Your task to perform on an android device: turn vacation reply on in the gmail app Image 0: 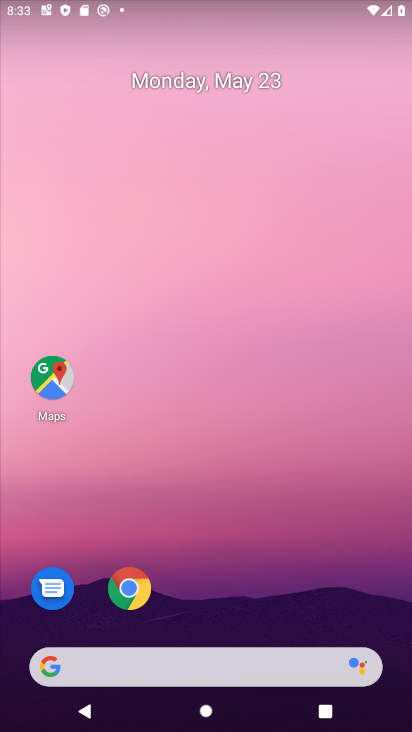
Step 0: drag from (395, 706) to (374, 218)
Your task to perform on an android device: turn vacation reply on in the gmail app Image 1: 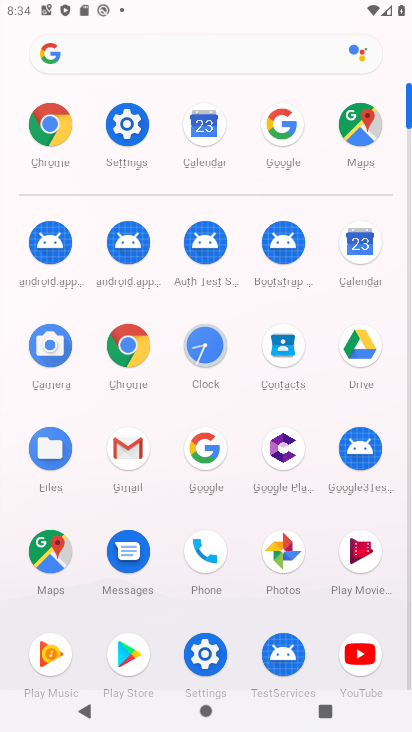
Step 1: click (117, 463)
Your task to perform on an android device: turn vacation reply on in the gmail app Image 2: 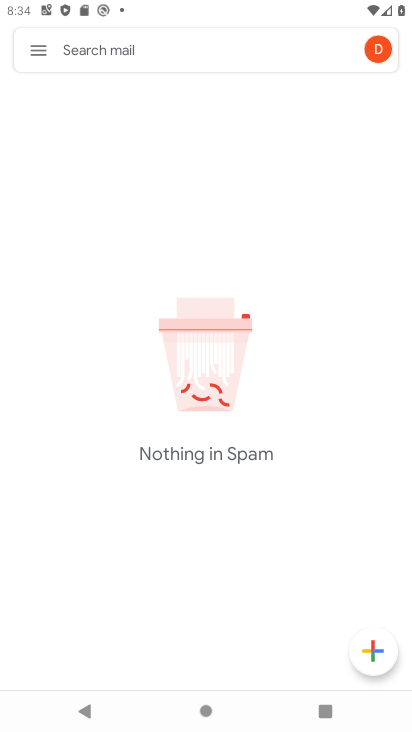
Step 2: click (26, 51)
Your task to perform on an android device: turn vacation reply on in the gmail app Image 3: 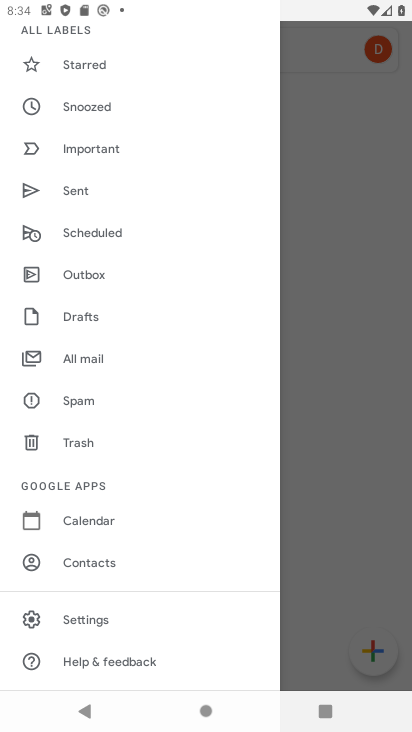
Step 3: click (89, 621)
Your task to perform on an android device: turn vacation reply on in the gmail app Image 4: 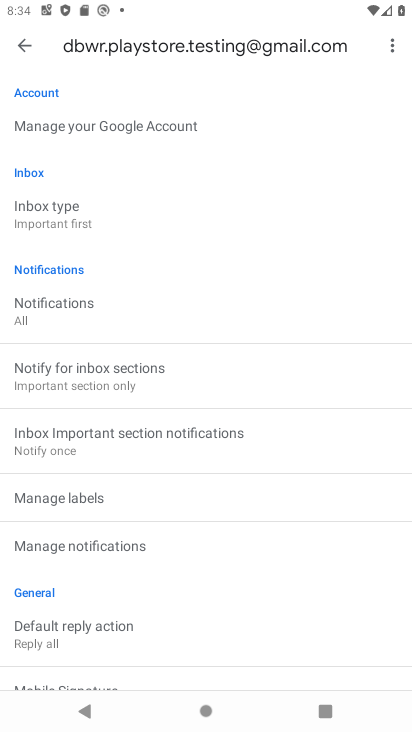
Step 4: drag from (298, 605) to (279, 351)
Your task to perform on an android device: turn vacation reply on in the gmail app Image 5: 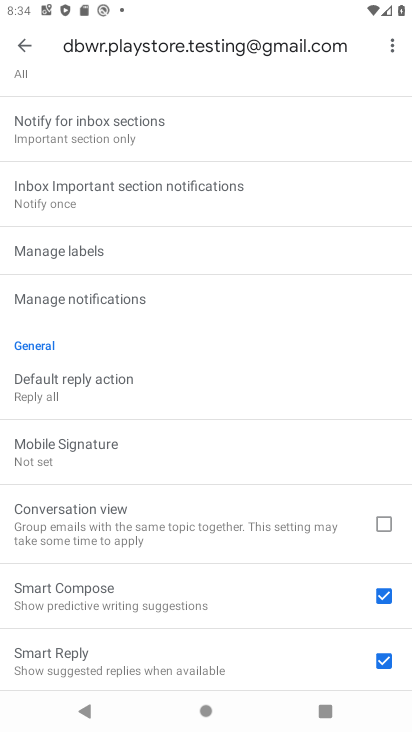
Step 5: drag from (286, 144) to (282, 539)
Your task to perform on an android device: turn vacation reply on in the gmail app Image 6: 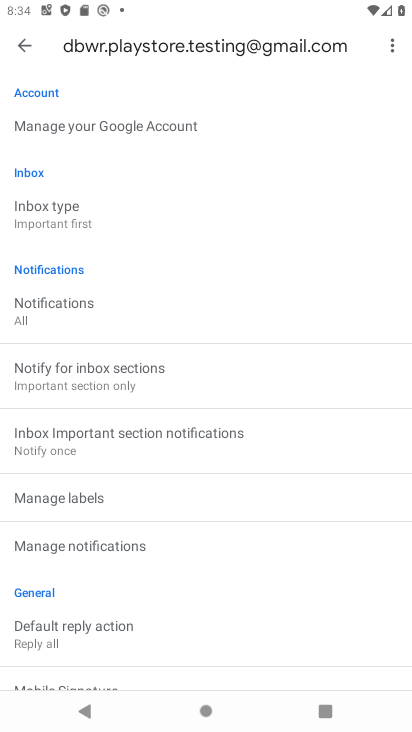
Step 6: drag from (209, 646) to (239, 352)
Your task to perform on an android device: turn vacation reply on in the gmail app Image 7: 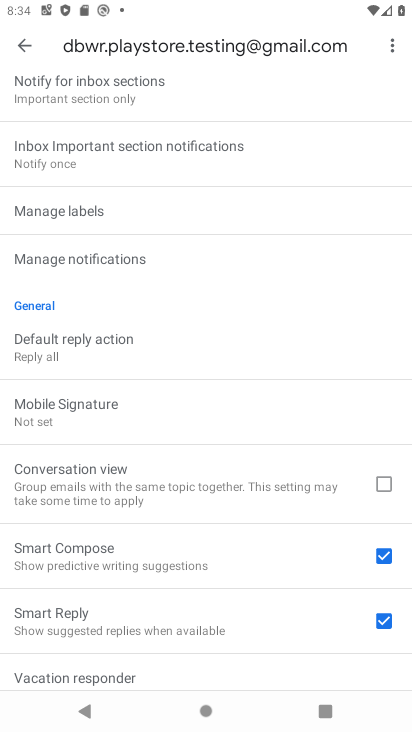
Step 7: click (226, 618)
Your task to perform on an android device: turn vacation reply on in the gmail app Image 8: 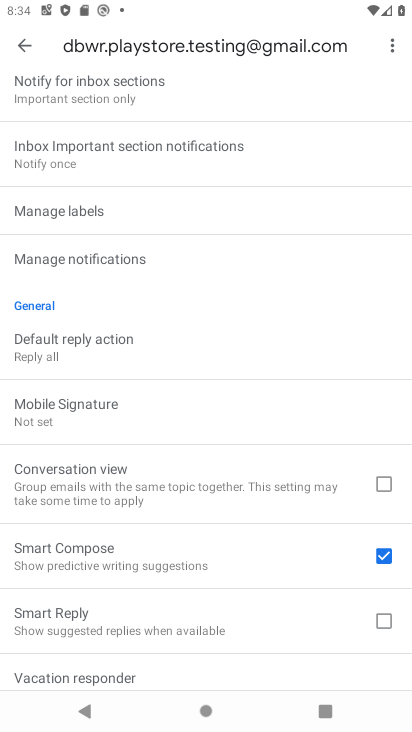
Step 8: click (386, 624)
Your task to perform on an android device: turn vacation reply on in the gmail app Image 9: 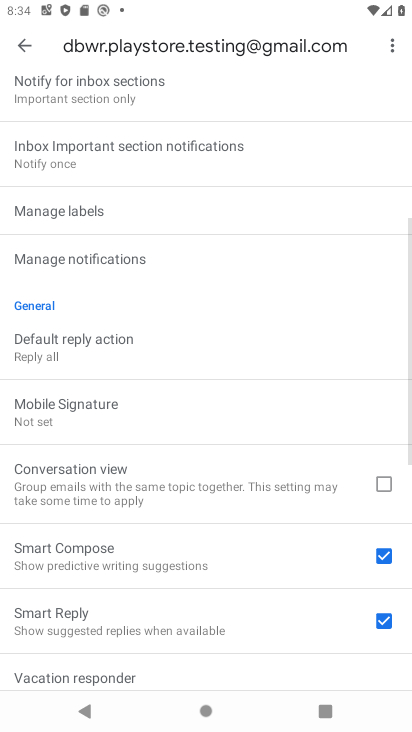
Step 9: task complete